Your task to perform on an android device: Open calendar and show me the third week of next month Image 0: 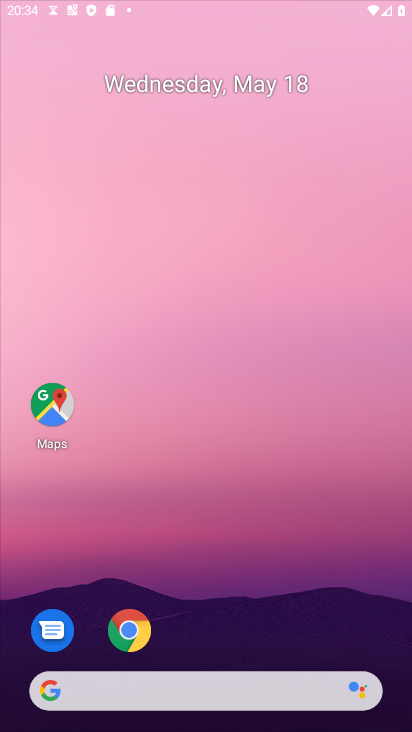
Step 0: press home button
Your task to perform on an android device: Open calendar and show me the third week of next month Image 1: 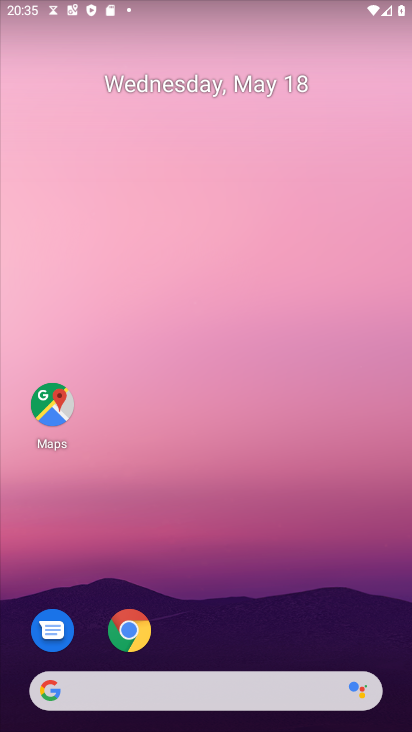
Step 1: drag from (140, 702) to (294, 242)
Your task to perform on an android device: Open calendar and show me the third week of next month Image 2: 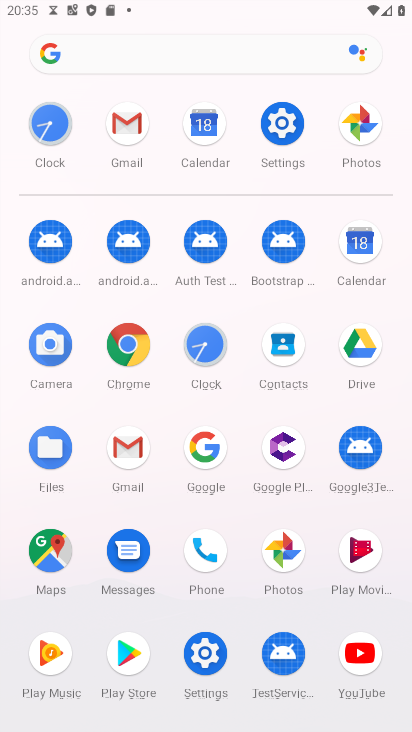
Step 2: click (363, 241)
Your task to perform on an android device: Open calendar and show me the third week of next month Image 3: 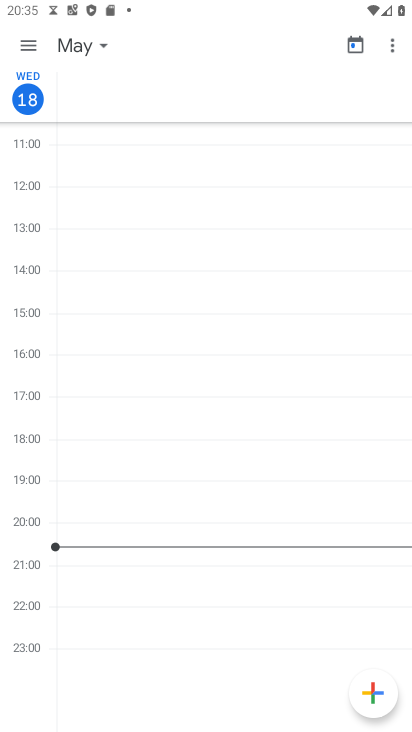
Step 3: click (28, 42)
Your task to perform on an android device: Open calendar and show me the third week of next month Image 4: 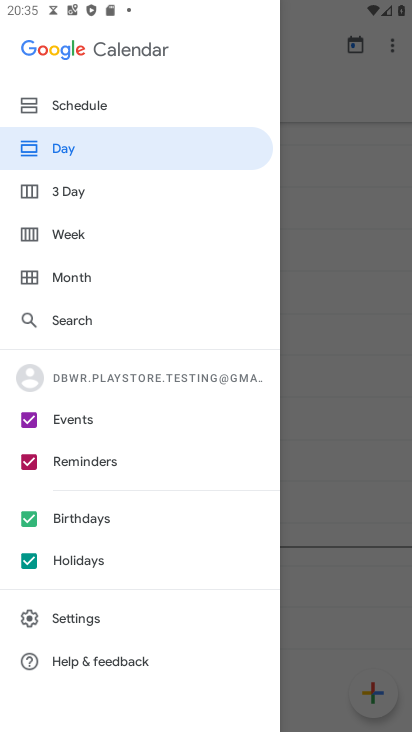
Step 4: click (341, 99)
Your task to perform on an android device: Open calendar and show me the third week of next month Image 5: 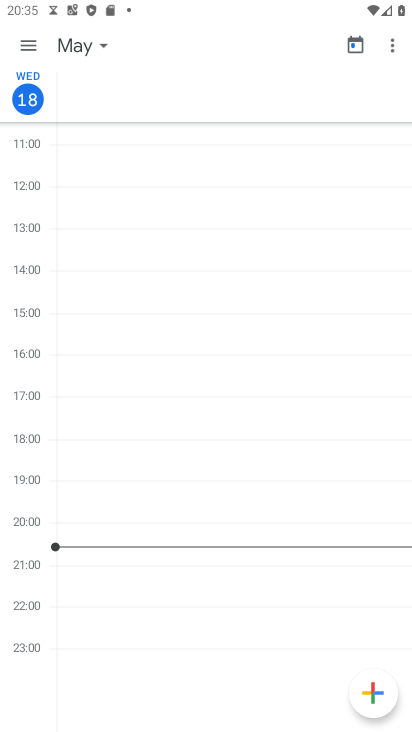
Step 5: click (75, 45)
Your task to perform on an android device: Open calendar and show me the third week of next month Image 6: 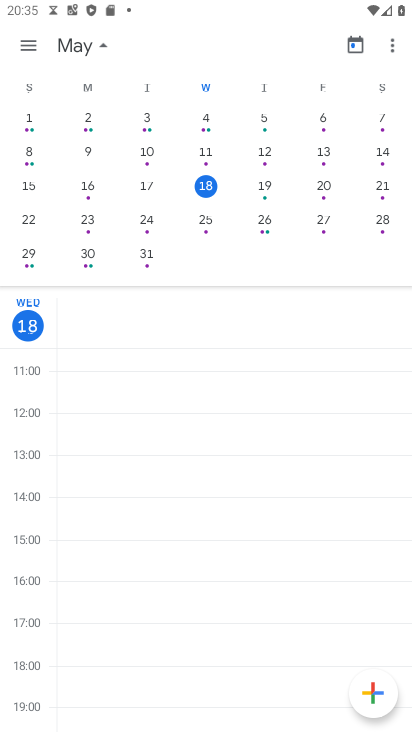
Step 6: drag from (342, 201) to (30, 202)
Your task to perform on an android device: Open calendar and show me the third week of next month Image 7: 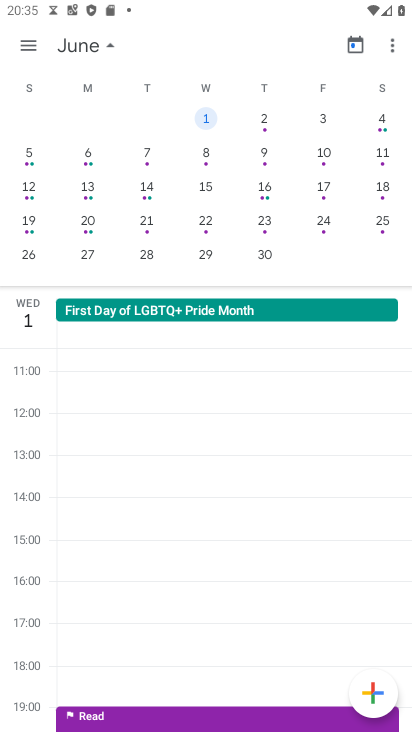
Step 7: click (28, 189)
Your task to perform on an android device: Open calendar and show me the third week of next month Image 8: 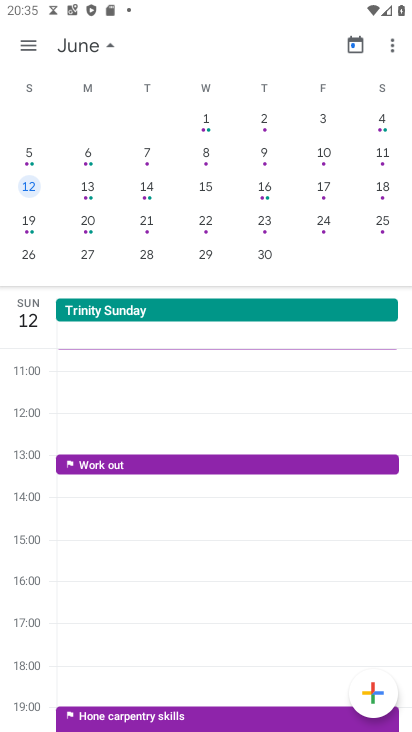
Step 8: click (25, 47)
Your task to perform on an android device: Open calendar and show me the third week of next month Image 9: 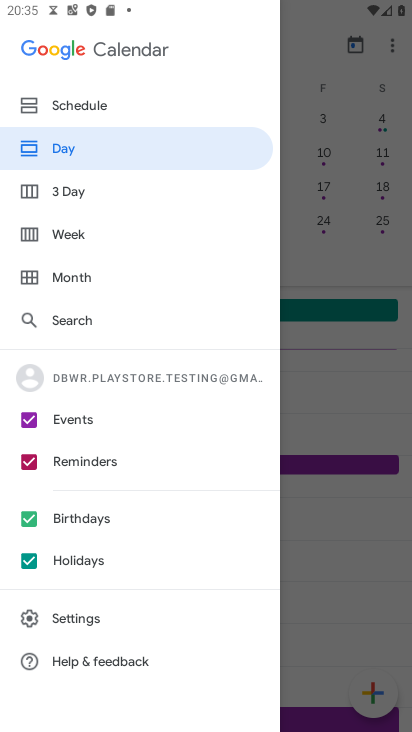
Step 9: click (74, 238)
Your task to perform on an android device: Open calendar and show me the third week of next month Image 10: 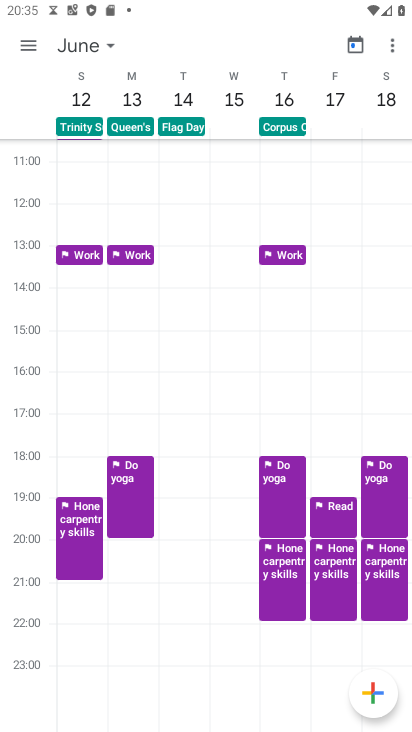
Step 10: task complete